Your task to perform on an android device: Go to Yahoo.com Image 0: 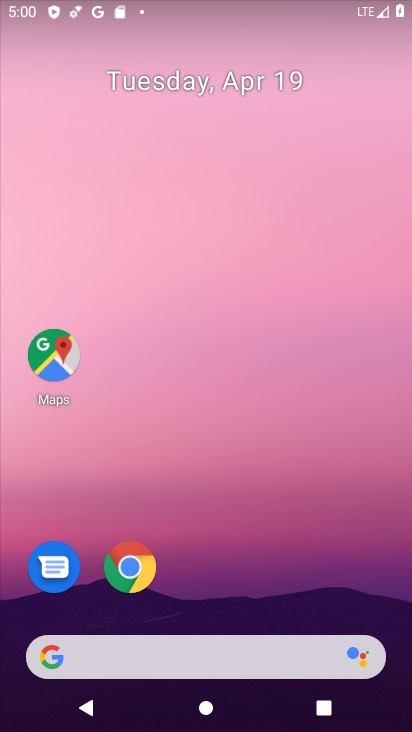
Step 0: drag from (199, 636) to (180, 58)
Your task to perform on an android device: Go to Yahoo.com Image 1: 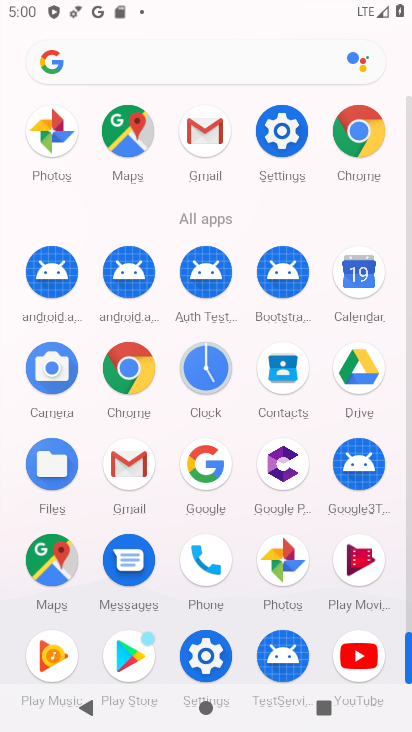
Step 1: click (124, 373)
Your task to perform on an android device: Go to Yahoo.com Image 2: 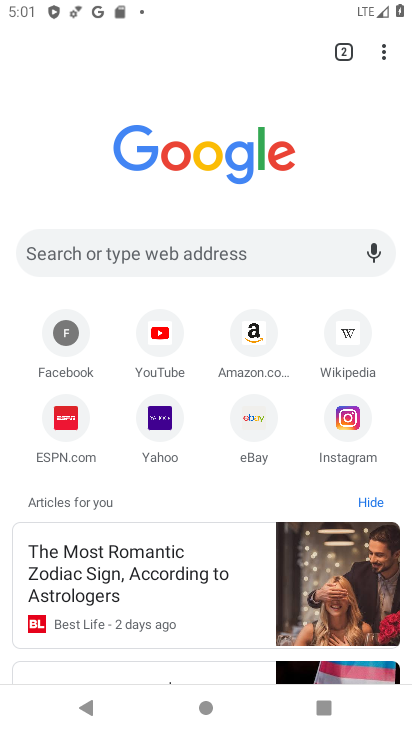
Step 2: click (287, 262)
Your task to perform on an android device: Go to Yahoo.com Image 3: 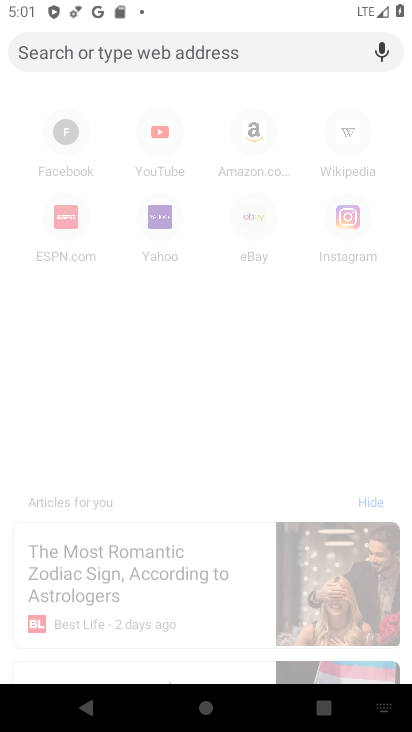
Step 3: type "yahoo.com"
Your task to perform on an android device: Go to Yahoo.com Image 4: 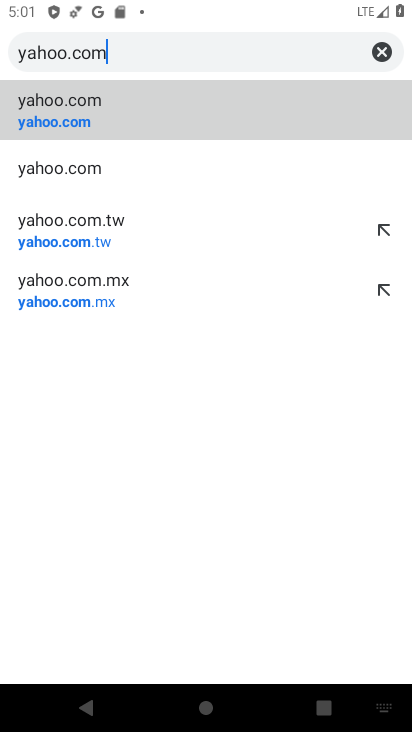
Step 4: click (220, 123)
Your task to perform on an android device: Go to Yahoo.com Image 5: 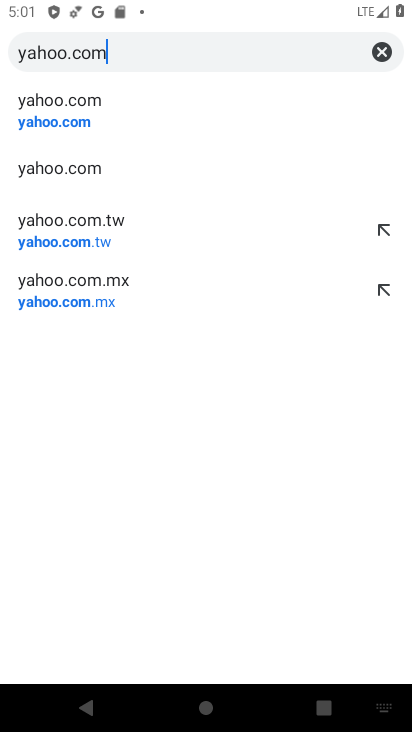
Step 5: click (143, 115)
Your task to perform on an android device: Go to Yahoo.com Image 6: 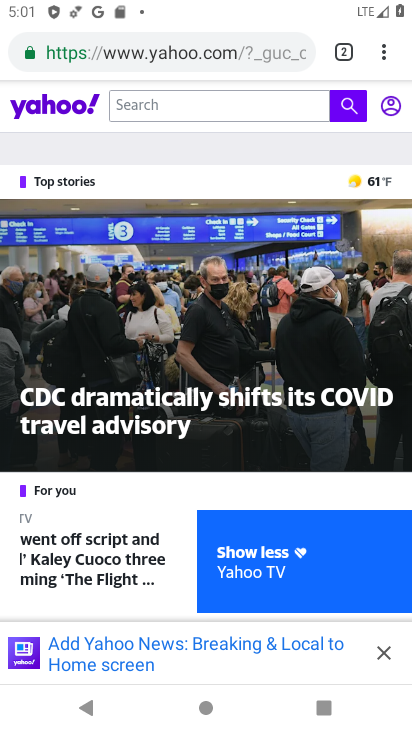
Step 6: task complete